Your task to perform on an android device: set an alarm Image 0: 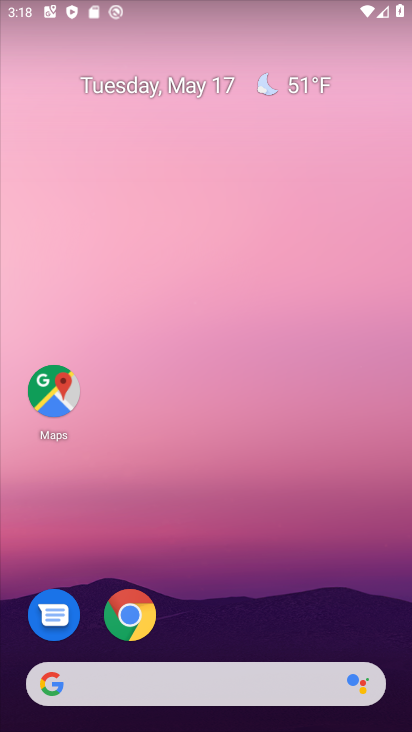
Step 0: drag from (218, 635) to (260, 116)
Your task to perform on an android device: set an alarm Image 1: 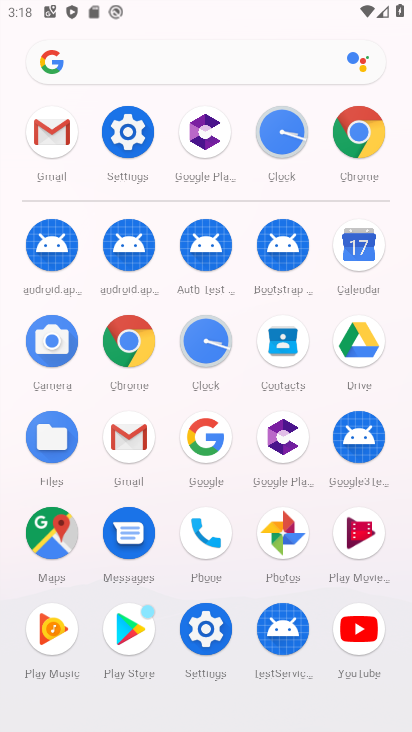
Step 1: click (204, 330)
Your task to perform on an android device: set an alarm Image 2: 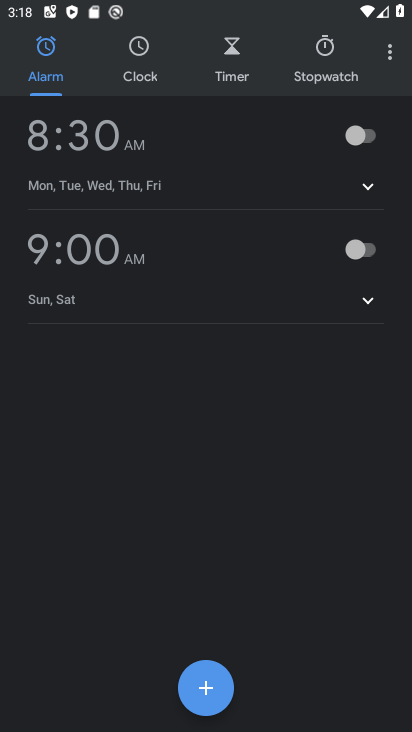
Step 2: click (362, 130)
Your task to perform on an android device: set an alarm Image 3: 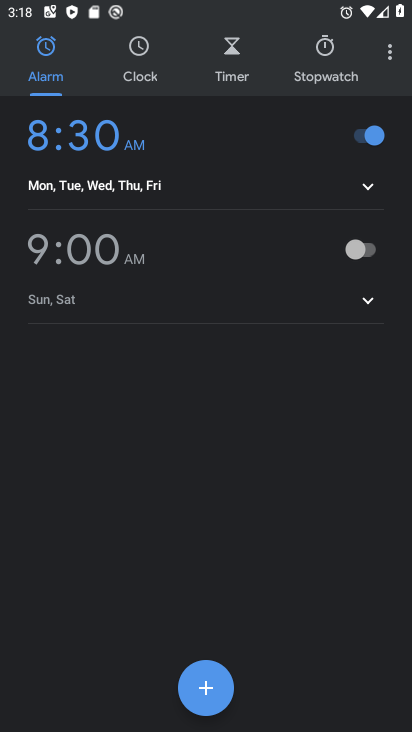
Step 3: task complete